Your task to perform on an android device: turn off smart reply in the gmail app Image 0: 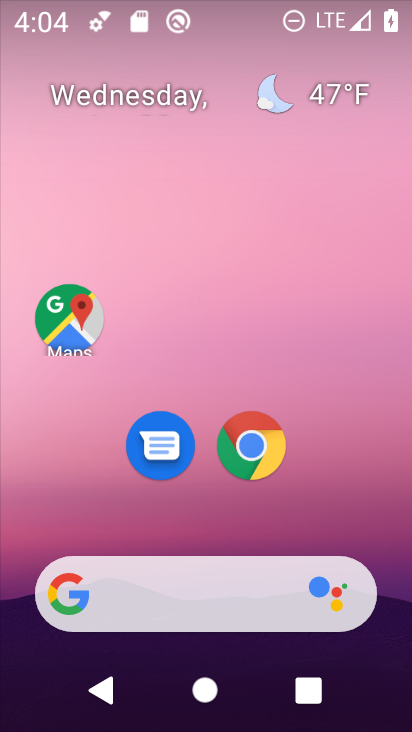
Step 0: drag from (286, 532) to (304, 150)
Your task to perform on an android device: turn off smart reply in the gmail app Image 1: 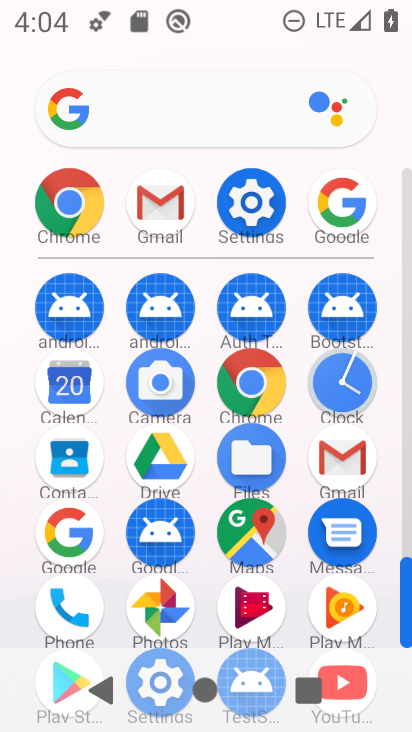
Step 1: click (160, 199)
Your task to perform on an android device: turn off smart reply in the gmail app Image 2: 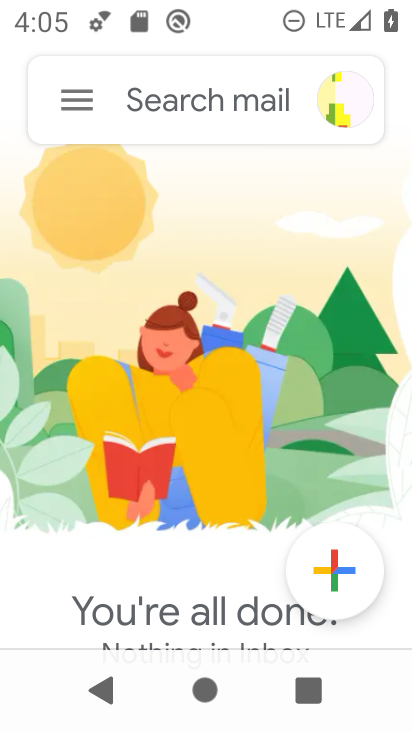
Step 2: click (81, 110)
Your task to perform on an android device: turn off smart reply in the gmail app Image 3: 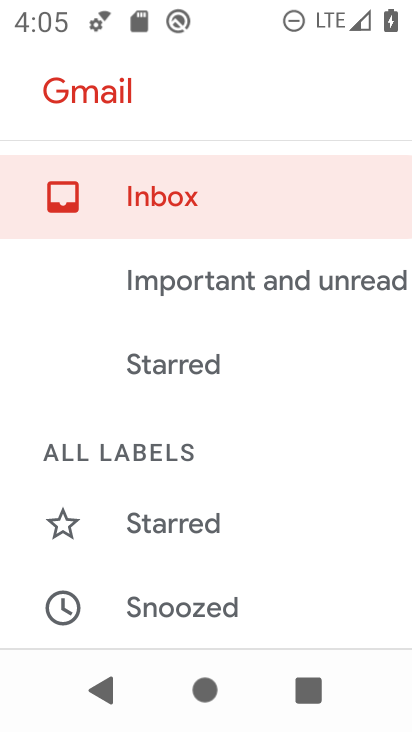
Step 3: drag from (259, 496) to (301, 351)
Your task to perform on an android device: turn off smart reply in the gmail app Image 4: 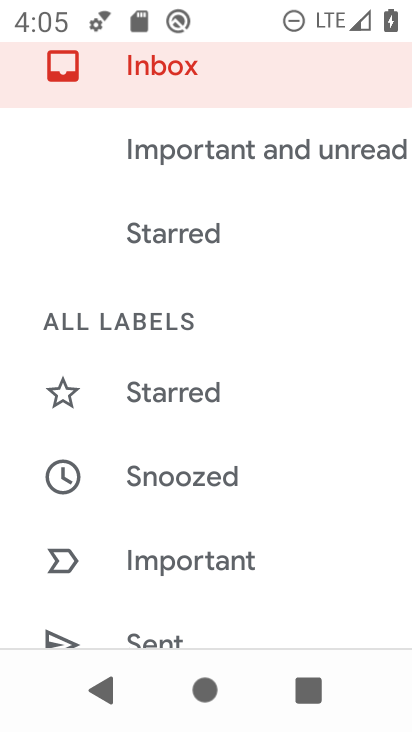
Step 4: drag from (247, 486) to (287, 373)
Your task to perform on an android device: turn off smart reply in the gmail app Image 5: 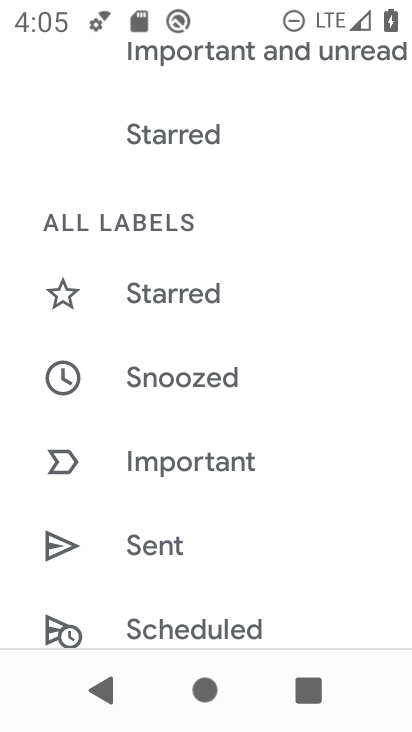
Step 5: drag from (244, 524) to (280, 381)
Your task to perform on an android device: turn off smart reply in the gmail app Image 6: 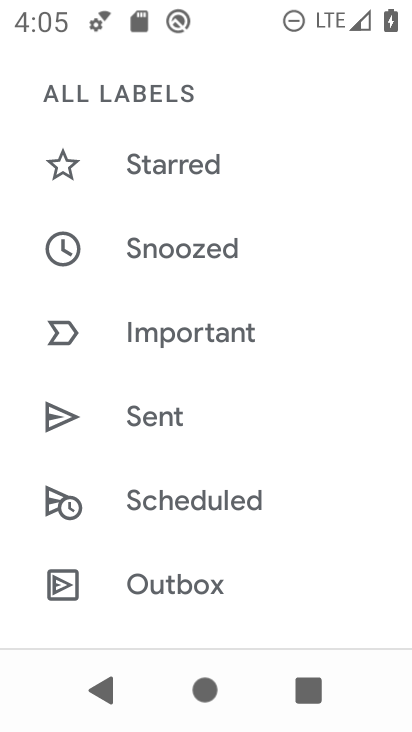
Step 6: drag from (227, 512) to (283, 353)
Your task to perform on an android device: turn off smart reply in the gmail app Image 7: 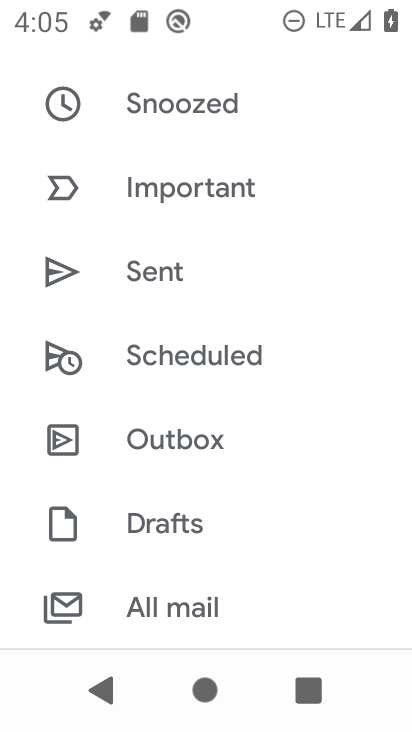
Step 7: drag from (222, 501) to (256, 383)
Your task to perform on an android device: turn off smart reply in the gmail app Image 8: 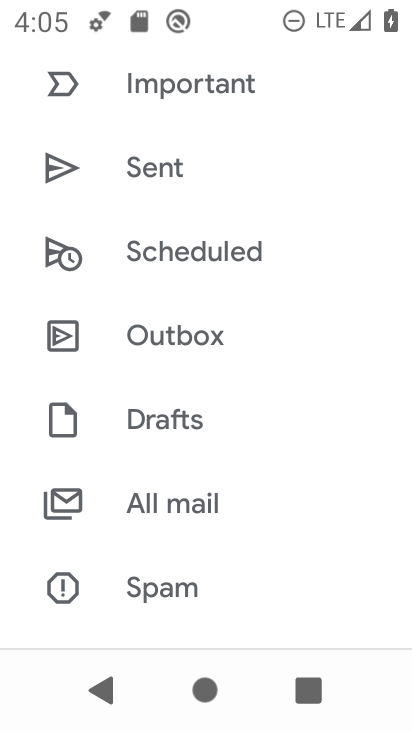
Step 8: drag from (246, 504) to (279, 399)
Your task to perform on an android device: turn off smart reply in the gmail app Image 9: 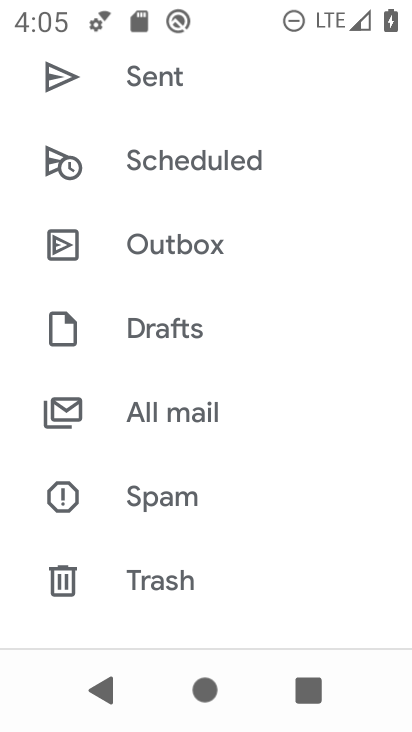
Step 9: drag from (240, 497) to (272, 387)
Your task to perform on an android device: turn off smart reply in the gmail app Image 10: 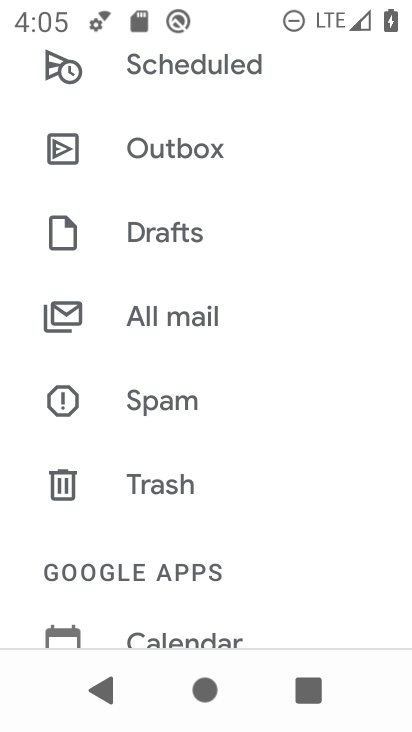
Step 10: drag from (223, 491) to (263, 362)
Your task to perform on an android device: turn off smart reply in the gmail app Image 11: 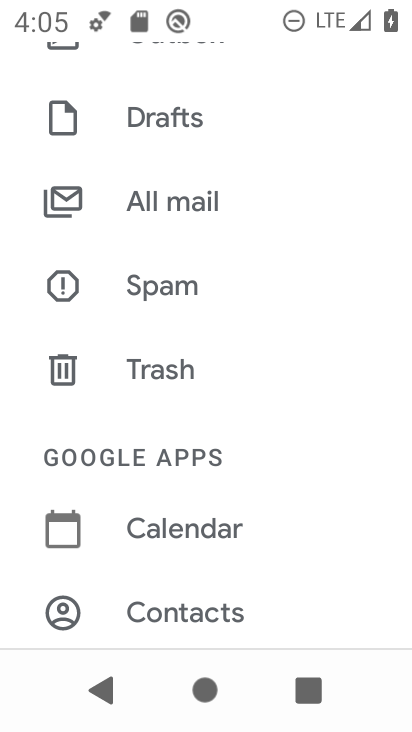
Step 11: drag from (236, 489) to (270, 392)
Your task to perform on an android device: turn off smart reply in the gmail app Image 12: 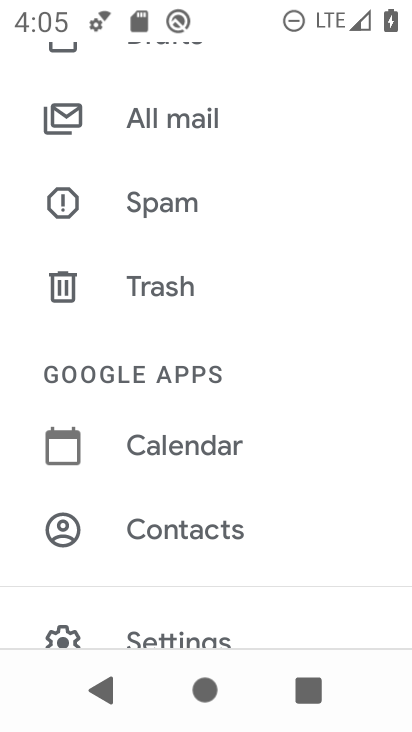
Step 12: drag from (211, 543) to (256, 434)
Your task to perform on an android device: turn off smart reply in the gmail app Image 13: 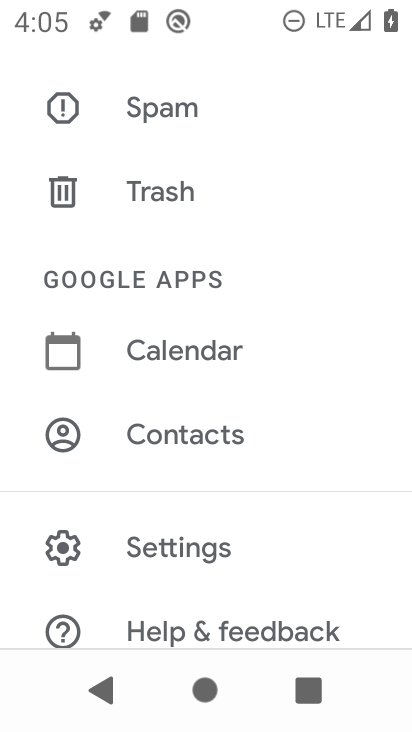
Step 13: click (201, 549)
Your task to perform on an android device: turn off smart reply in the gmail app Image 14: 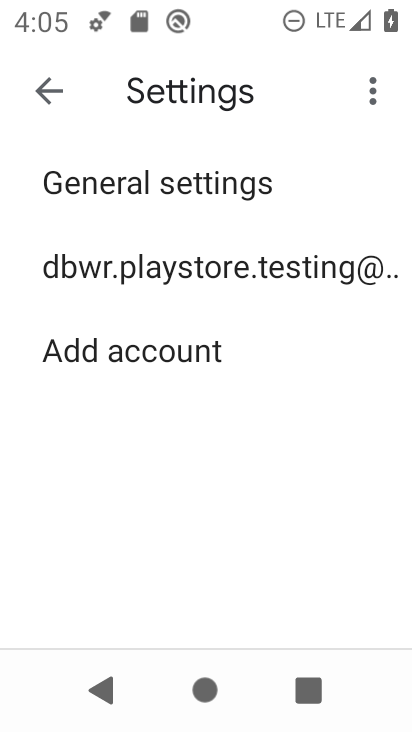
Step 14: click (227, 261)
Your task to perform on an android device: turn off smart reply in the gmail app Image 15: 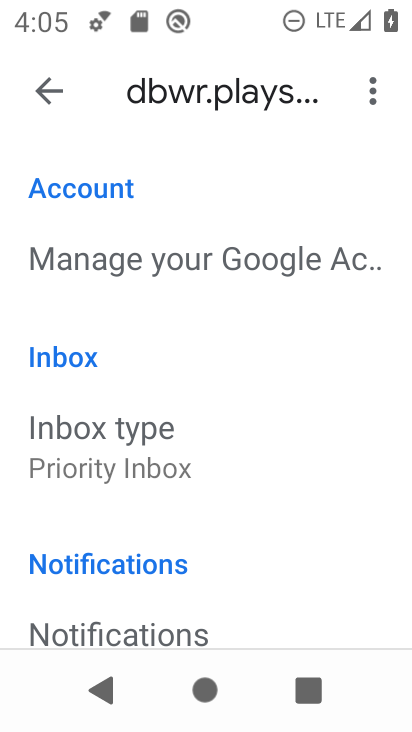
Step 15: drag from (236, 569) to (285, 438)
Your task to perform on an android device: turn off smart reply in the gmail app Image 16: 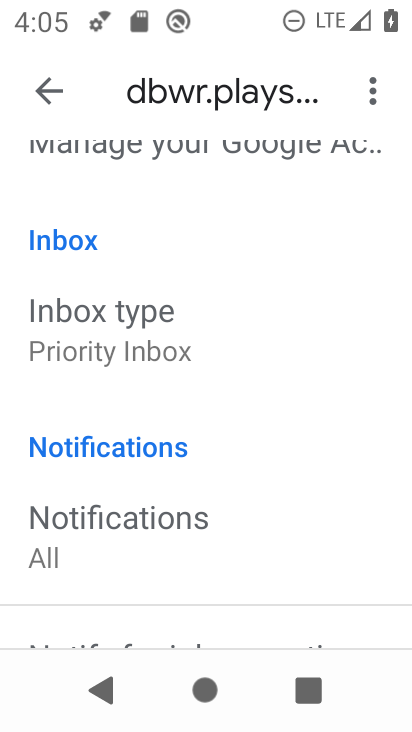
Step 16: drag from (231, 565) to (260, 422)
Your task to perform on an android device: turn off smart reply in the gmail app Image 17: 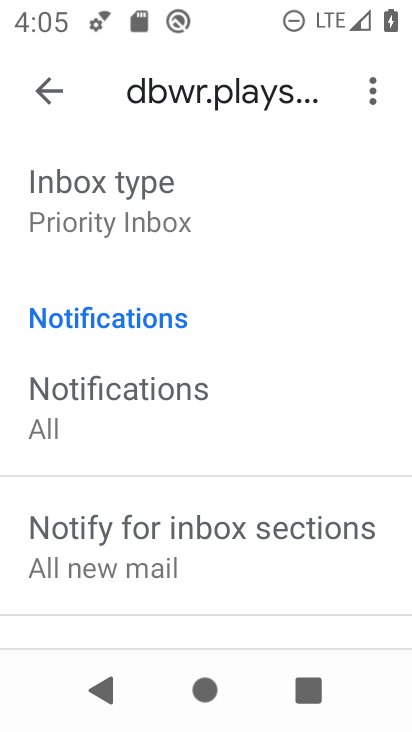
Step 17: drag from (227, 581) to (291, 405)
Your task to perform on an android device: turn off smart reply in the gmail app Image 18: 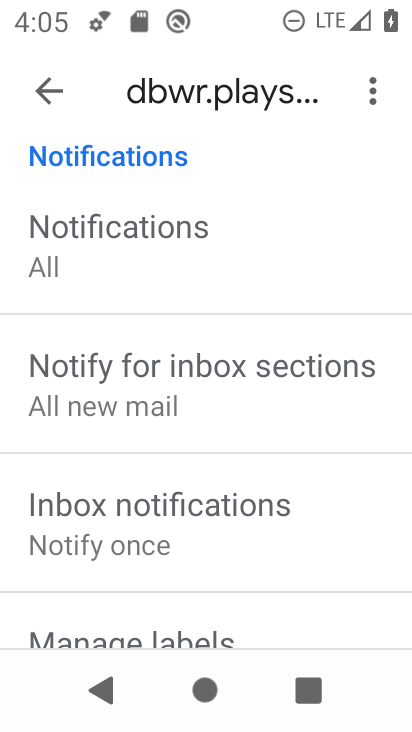
Step 18: drag from (266, 545) to (302, 398)
Your task to perform on an android device: turn off smart reply in the gmail app Image 19: 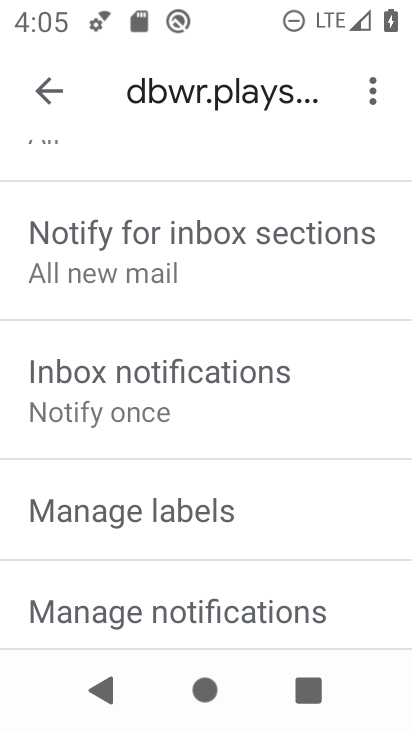
Step 19: drag from (288, 495) to (309, 407)
Your task to perform on an android device: turn off smart reply in the gmail app Image 20: 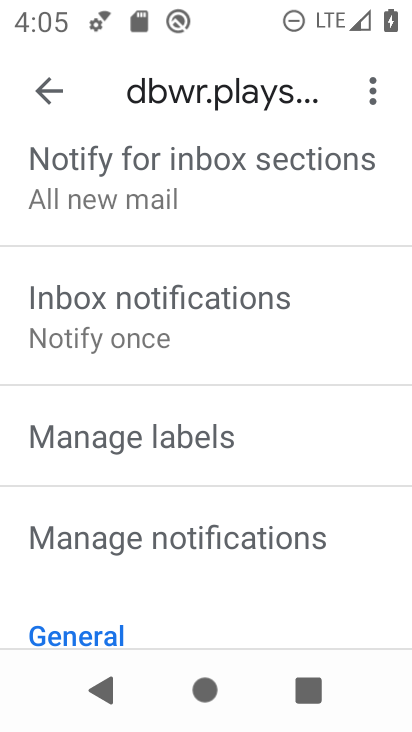
Step 20: drag from (262, 497) to (285, 368)
Your task to perform on an android device: turn off smart reply in the gmail app Image 21: 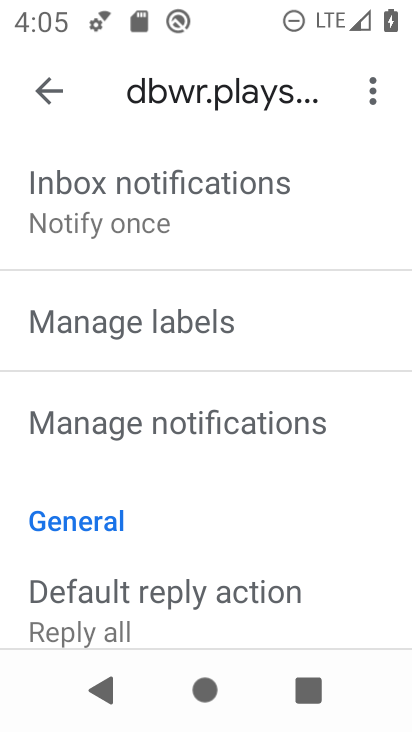
Step 21: drag from (236, 542) to (281, 397)
Your task to perform on an android device: turn off smart reply in the gmail app Image 22: 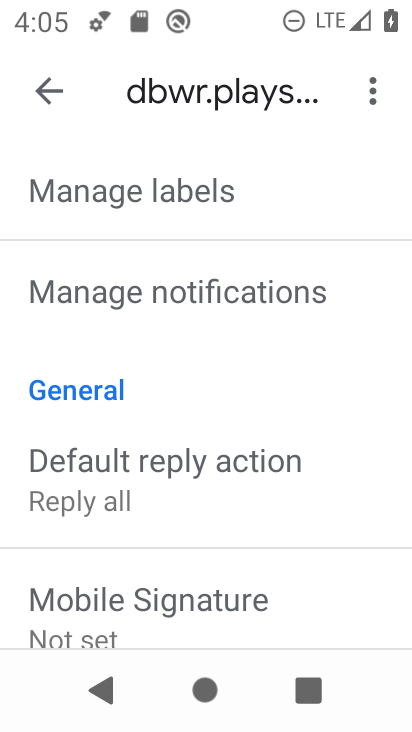
Step 22: drag from (261, 561) to (308, 413)
Your task to perform on an android device: turn off smart reply in the gmail app Image 23: 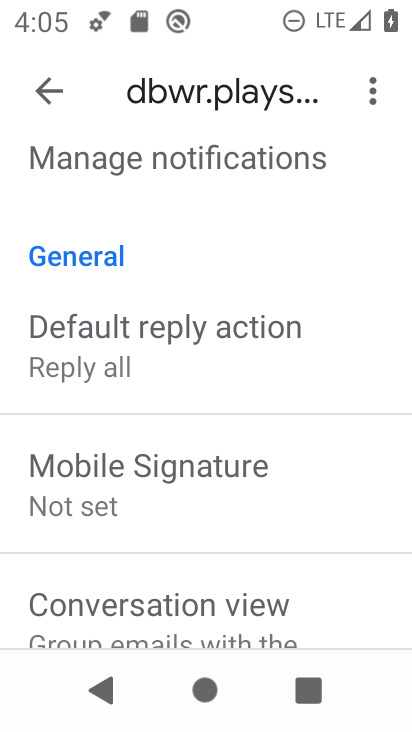
Step 23: drag from (248, 587) to (325, 425)
Your task to perform on an android device: turn off smart reply in the gmail app Image 24: 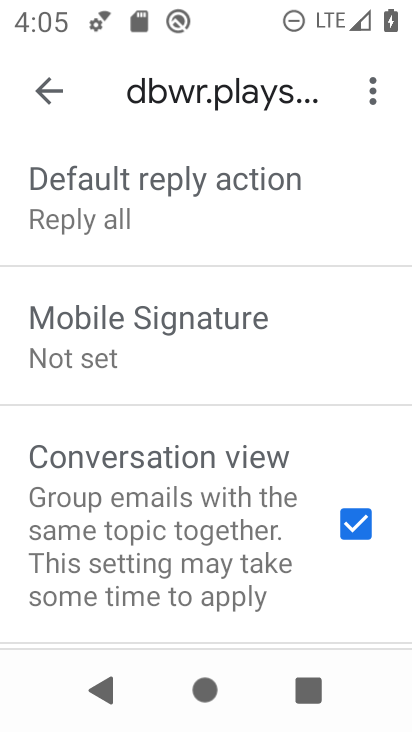
Step 24: drag from (278, 623) to (337, 437)
Your task to perform on an android device: turn off smart reply in the gmail app Image 25: 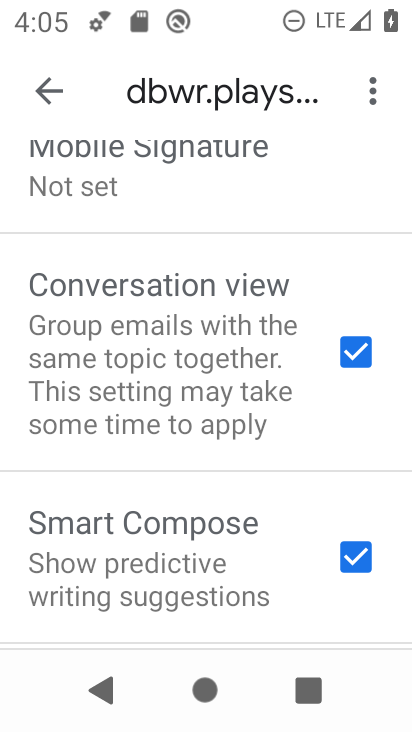
Step 25: drag from (276, 583) to (304, 402)
Your task to perform on an android device: turn off smart reply in the gmail app Image 26: 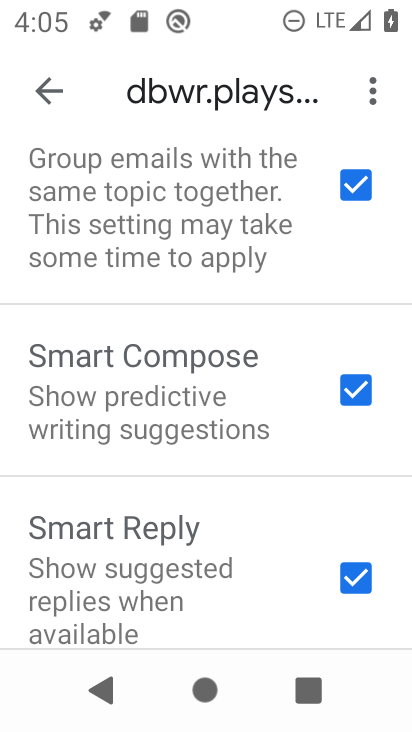
Step 26: click (350, 580)
Your task to perform on an android device: turn off smart reply in the gmail app Image 27: 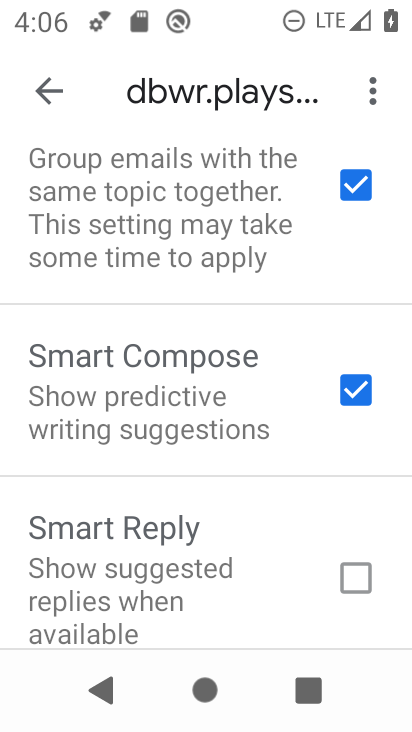
Step 27: task complete